Your task to perform on an android device: Find coffee shops on Maps Image 0: 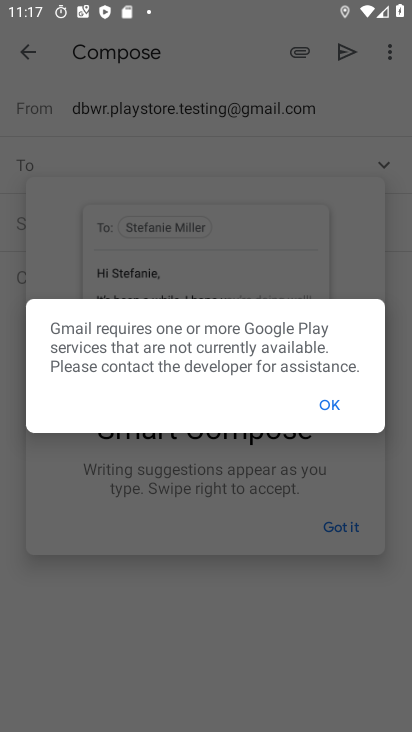
Step 0: press home button
Your task to perform on an android device: Find coffee shops on Maps Image 1: 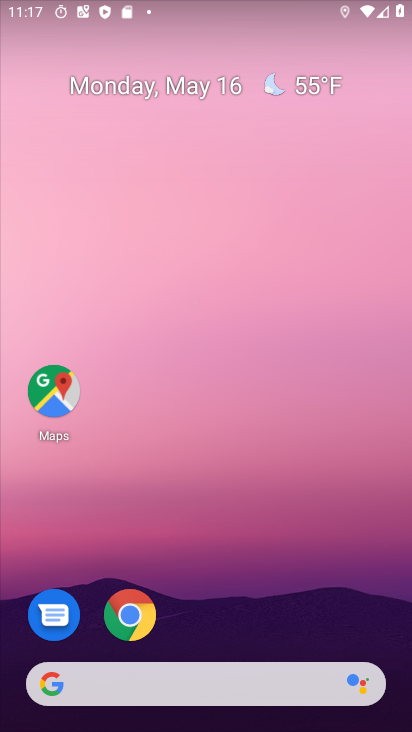
Step 1: drag from (304, 577) to (339, 38)
Your task to perform on an android device: Find coffee shops on Maps Image 2: 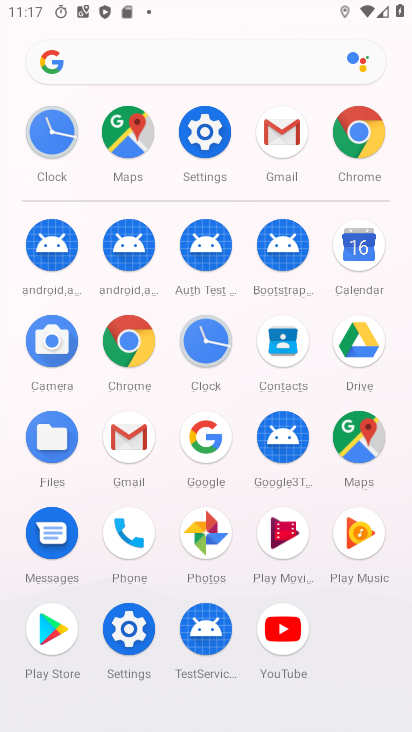
Step 2: click (130, 140)
Your task to perform on an android device: Find coffee shops on Maps Image 3: 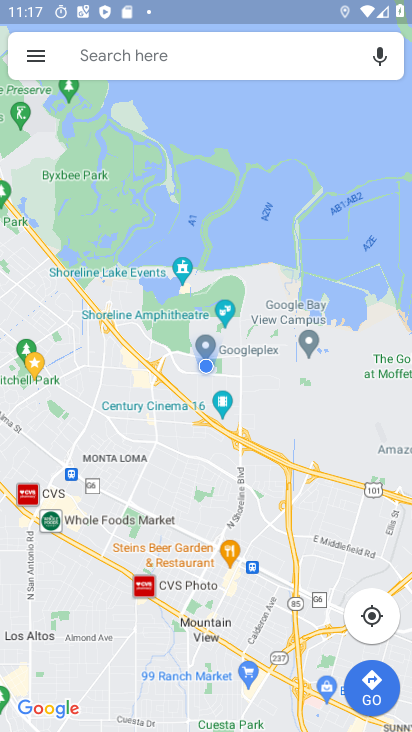
Step 3: click (121, 46)
Your task to perform on an android device: Find coffee shops on Maps Image 4: 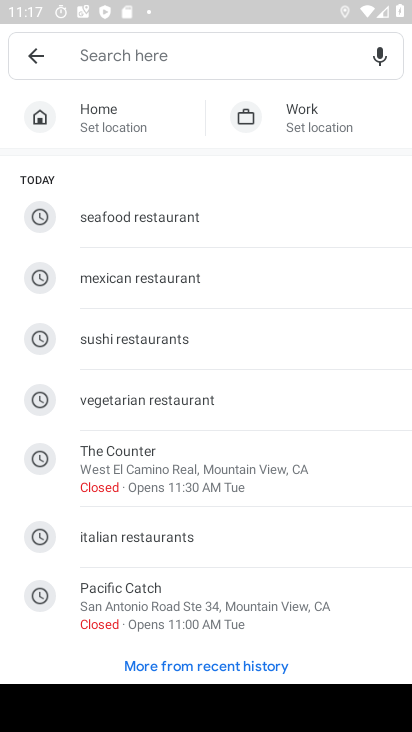
Step 4: type " coffee shops "
Your task to perform on an android device: Find coffee shops on Maps Image 5: 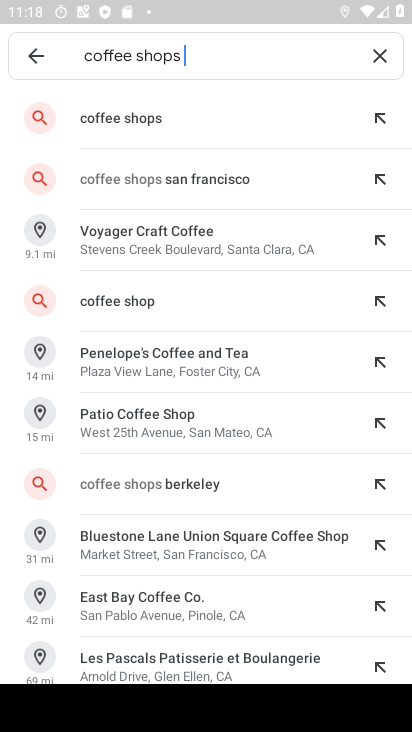
Step 5: click (133, 120)
Your task to perform on an android device: Find coffee shops on Maps Image 6: 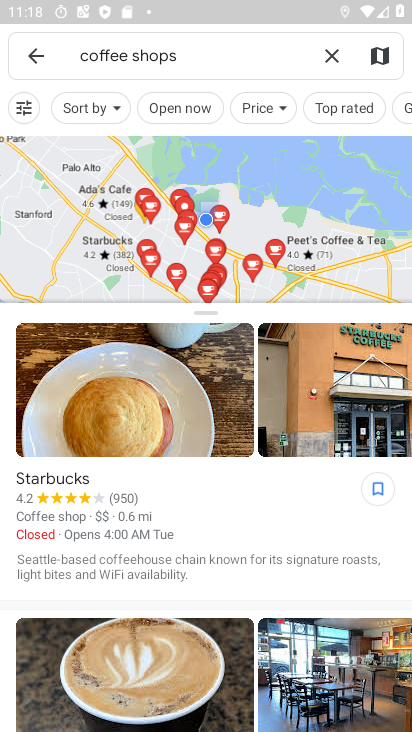
Step 6: task complete